Your task to perform on an android device: Go to location settings Image 0: 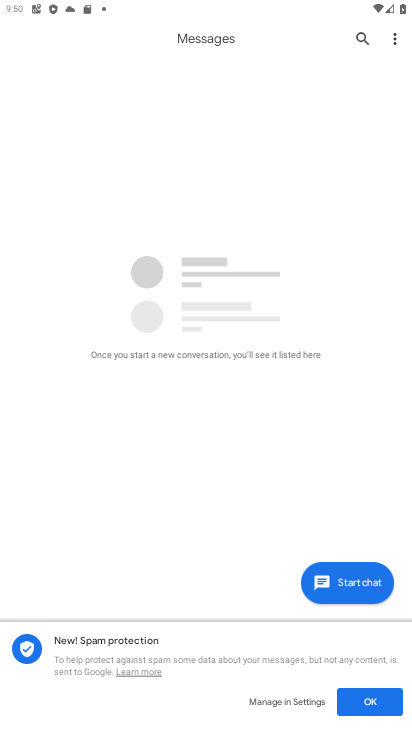
Step 0: press home button
Your task to perform on an android device: Go to location settings Image 1: 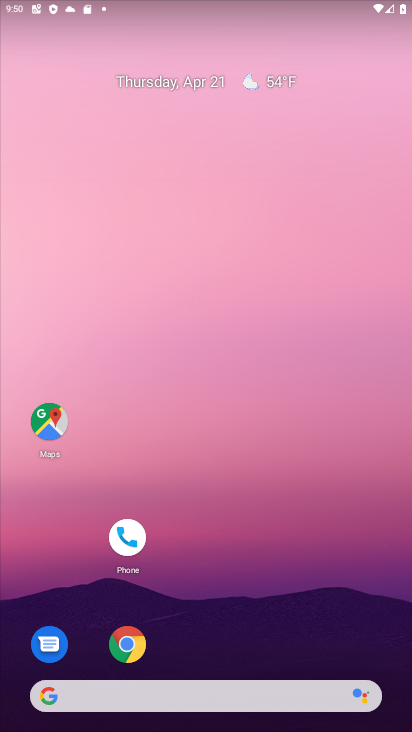
Step 1: drag from (247, 624) to (244, 139)
Your task to perform on an android device: Go to location settings Image 2: 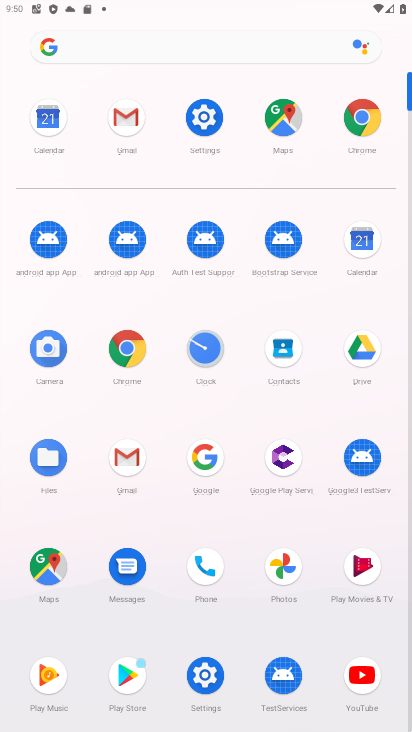
Step 2: click (204, 664)
Your task to perform on an android device: Go to location settings Image 3: 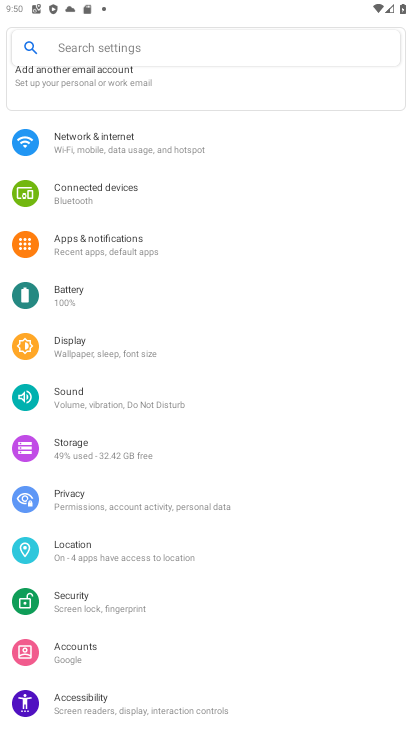
Step 3: click (121, 550)
Your task to perform on an android device: Go to location settings Image 4: 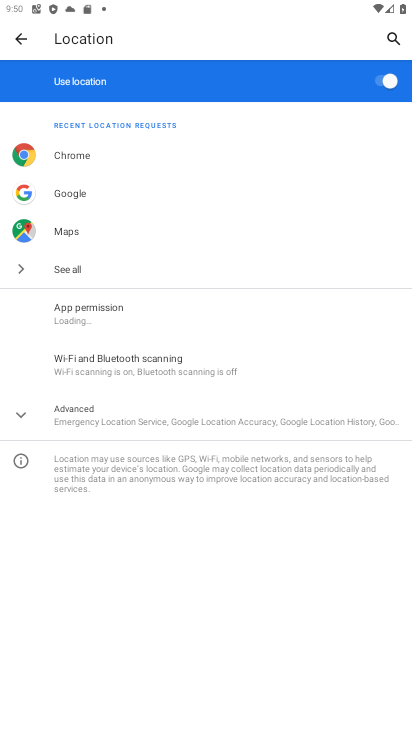
Step 4: task complete